Your task to perform on an android device: Open accessibility settings Image 0: 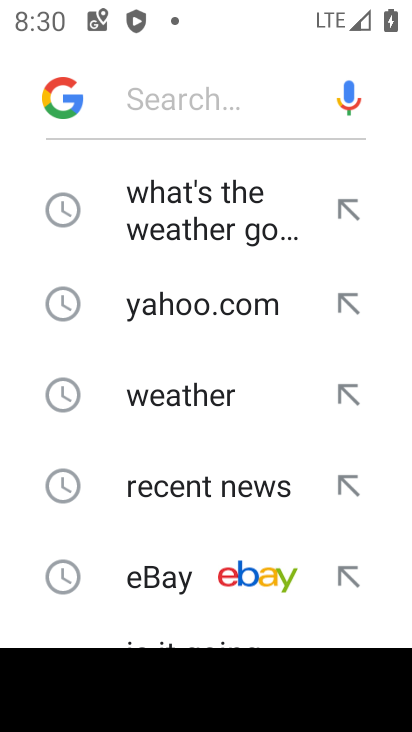
Step 0: press home button
Your task to perform on an android device: Open accessibility settings Image 1: 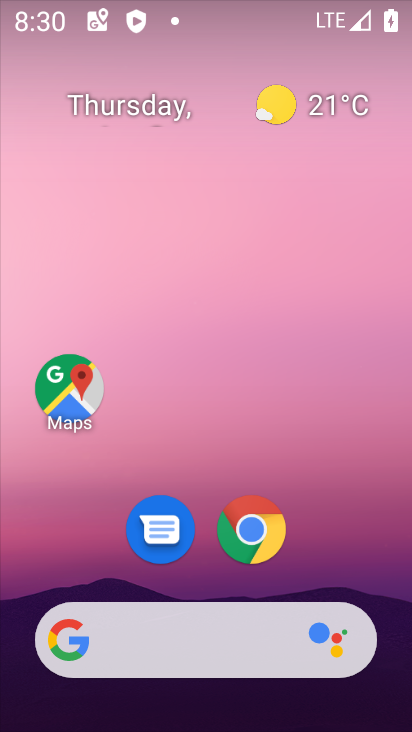
Step 1: drag from (198, 719) to (228, 117)
Your task to perform on an android device: Open accessibility settings Image 2: 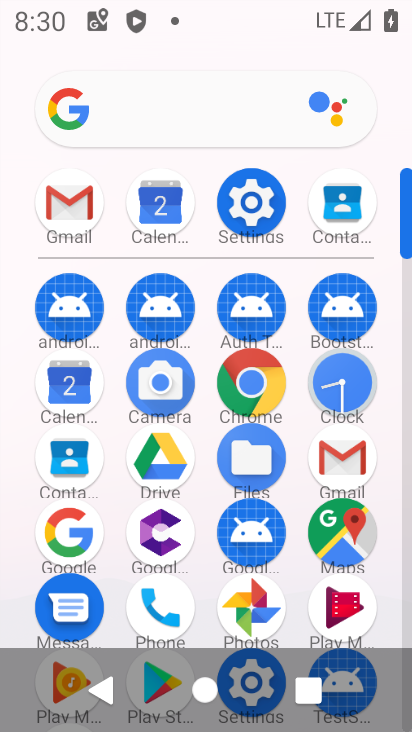
Step 2: click (251, 191)
Your task to perform on an android device: Open accessibility settings Image 3: 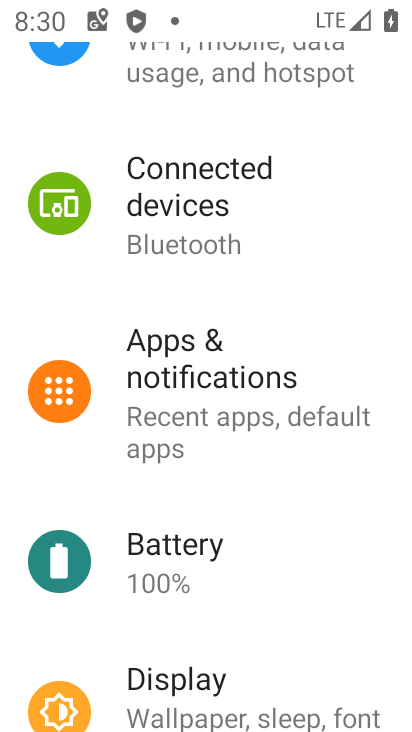
Step 3: drag from (295, 625) to (324, 31)
Your task to perform on an android device: Open accessibility settings Image 4: 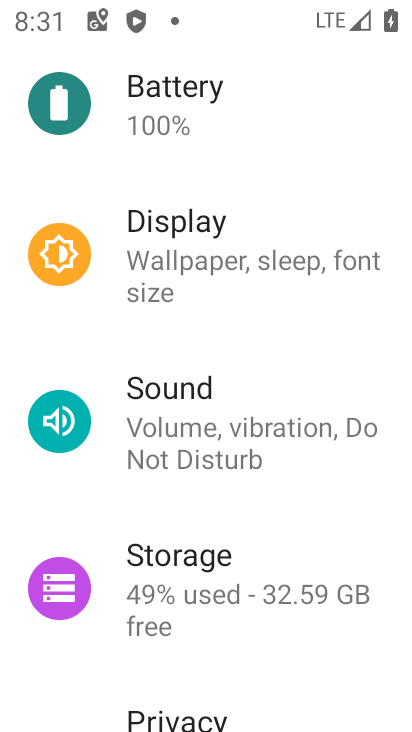
Step 4: drag from (278, 640) to (303, 60)
Your task to perform on an android device: Open accessibility settings Image 5: 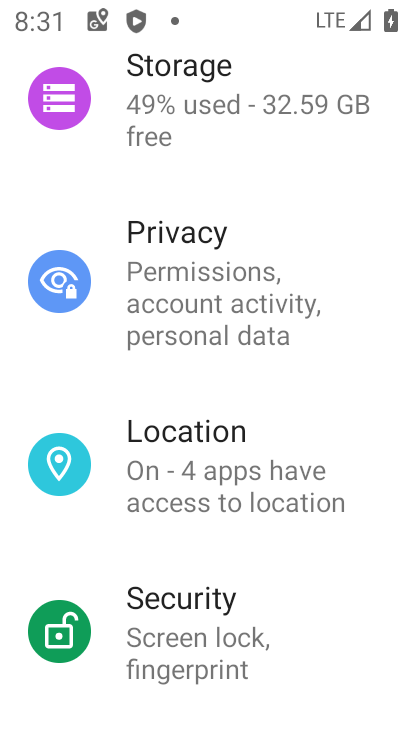
Step 5: drag from (312, 651) to (323, 1)
Your task to perform on an android device: Open accessibility settings Image 6: 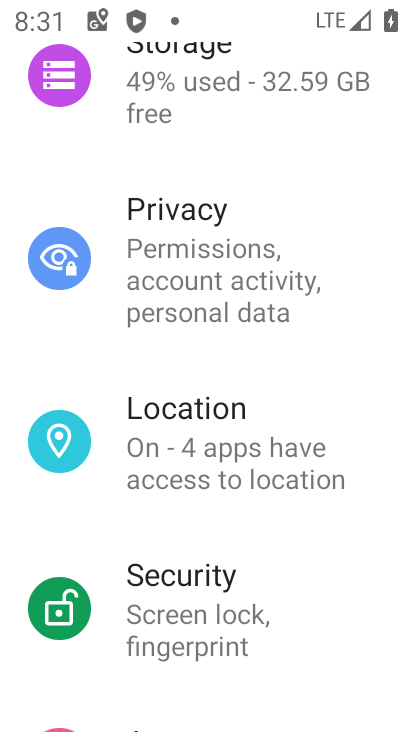
Step 6: drag from (301, 663) to (276, 85)
Your task to perform on an android device: Open accessibility settings Image 7: 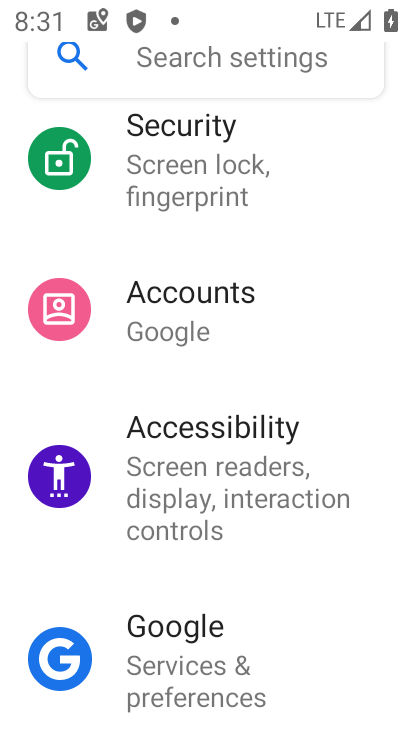
Step 7: click (242, 438)
Your task to perform on an android device: Open accessibility settings Image 8: 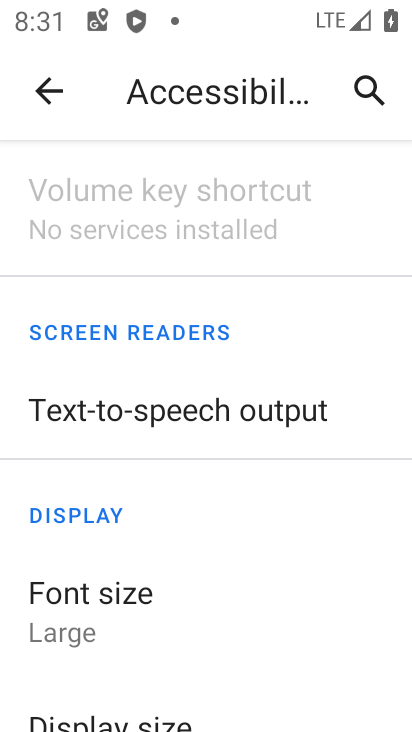
Step 8: task complete